Your task to perform on an android device: Clear the shopping cart on walmart.com. Search for macbook on walmart.com, select the first entry, add it to the cart, then select checkout. Image 0: 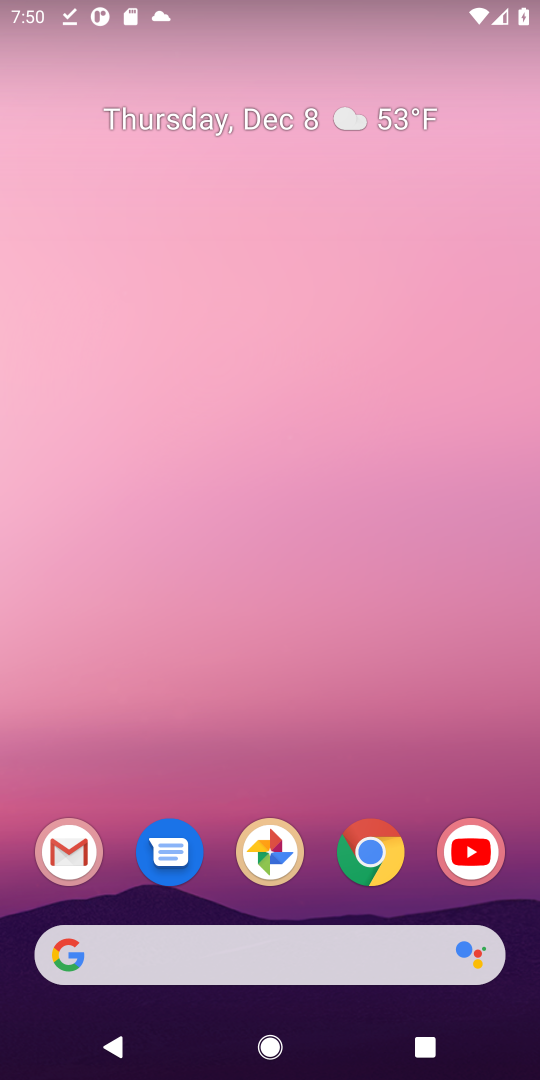
Step 0: click (227, 974)
Your task to perform on an android device: Clear the shopping cart on walmart.com. Search for macbook on walmart.com, select the first entry, add it to the cart, then select checkout. Image 1: 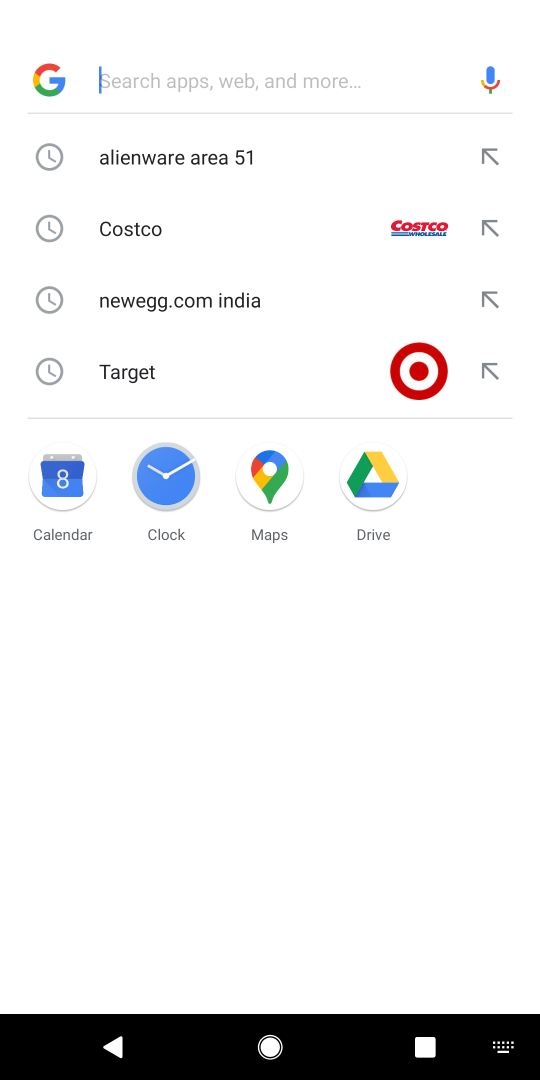
Step 1: type "walmart"
Your task to perform on an android device: Clear the shopping cart on walmart.com. Search for macbook on walmart.com, select the first entry, add it to the cart, then select checkout. Image 2: 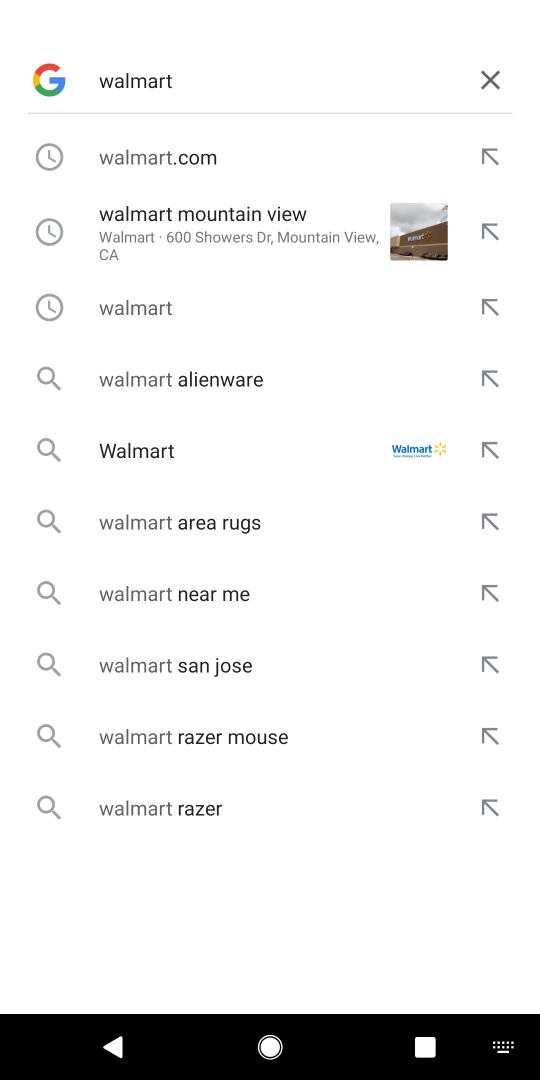
Step 2: click (239, 150)
Your task to perform on an android device: Clear the shopping cart on walmart.com. Search for macbook on walmart.com, select the first entry, add it to the cart, then select checkout. Image 3: 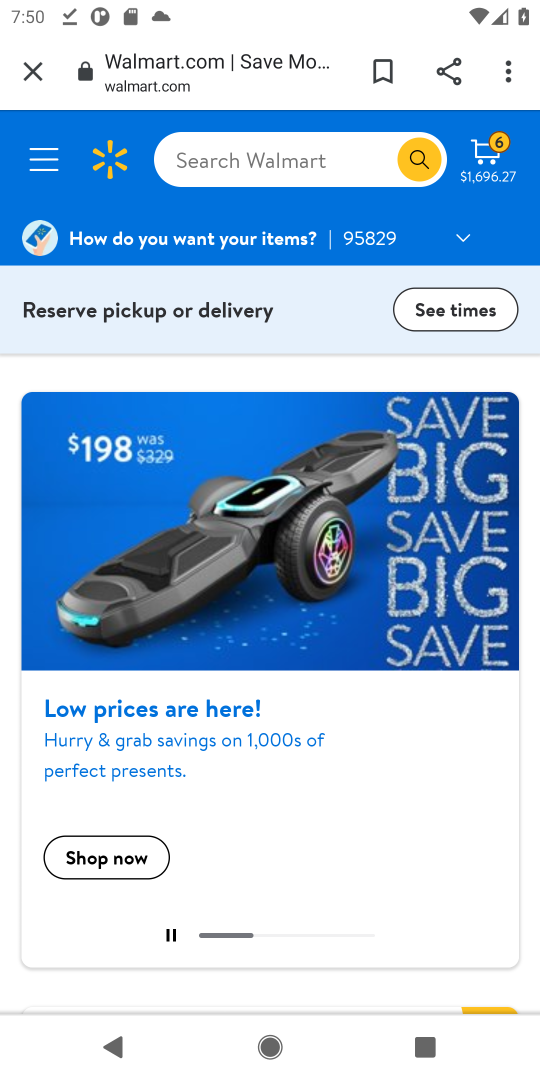
Step 3: click (259, 170)
Your task to perform on an android device: Clear the shopping cart on walmart.com. Search for macbook on walmart.com, select the first entry, add it to the cart, then select checkout. Image 4: 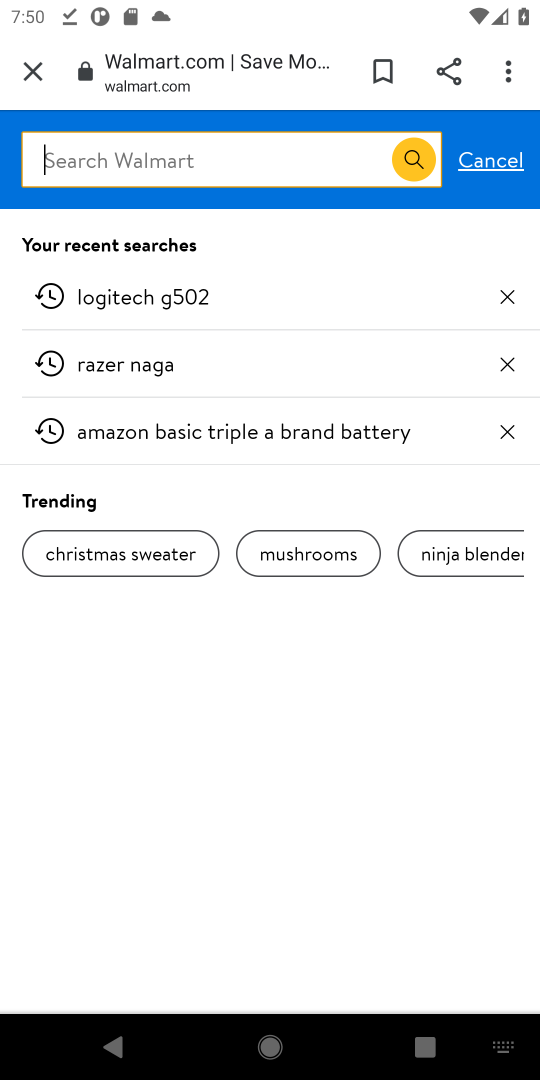
Step 4: type "macbook"
Your task to perform on an android device: Clear the shopping cart on walmart.com. Search for macbook on walmart.com, select the first entry, add it to the cart, then select checkout. Image 5: 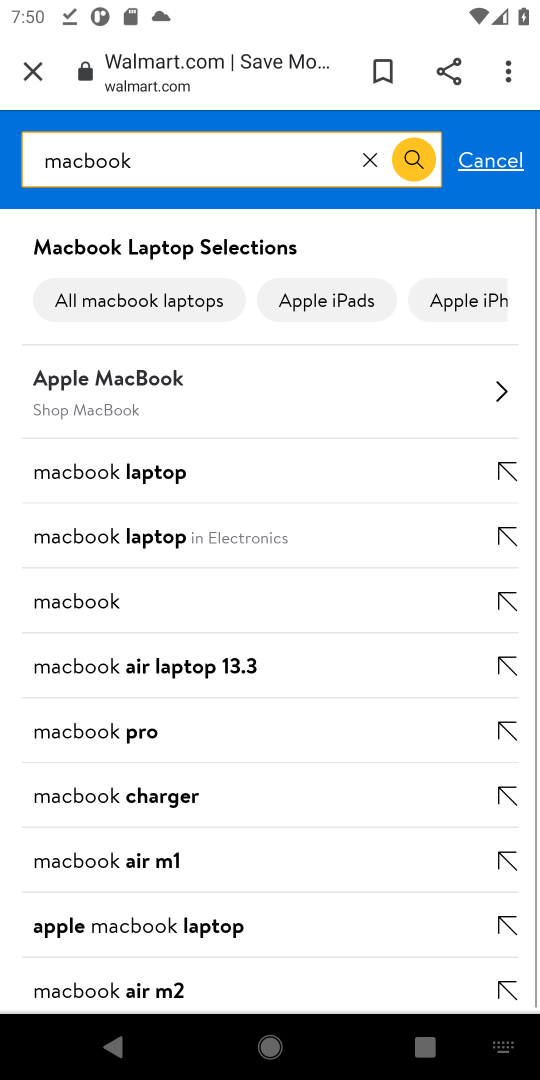
Step 5: click (133, 401)
Your task to perform on an android device: Clear the shopping cart on walmart.com. Search for macbook on walmart.com, select the first entry, add it to the cart, then select checkout. Image 6: 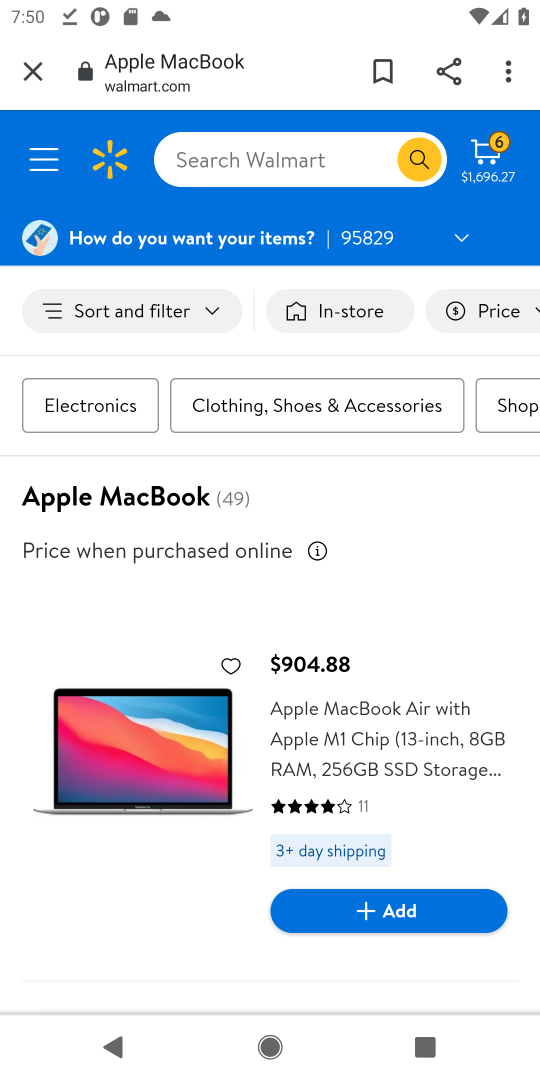
Step 6: click (412, 916)
Your task to perform on an android device: Clear the shopping cart on walmart.com. Search for macbook on walmart.com, select the first entry, add it to the cart, then select checkout. Image 7: 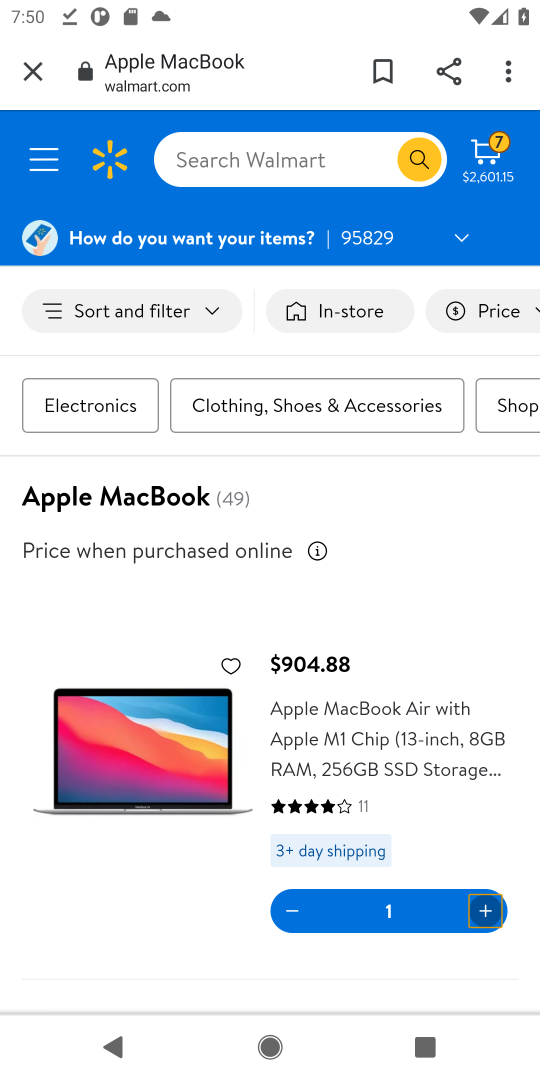
Step 7: task complete